Your task to perform on an android device: change the upload size in google photos Image 0: 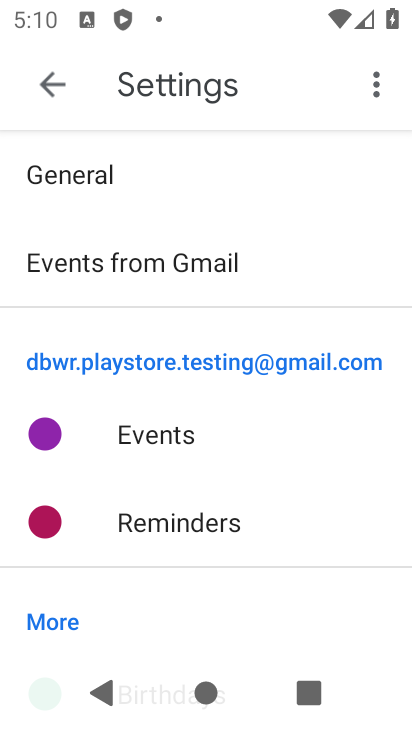
Step 0: press home button
Your task to perform on an android device: change the upload size in google photos Image 1: 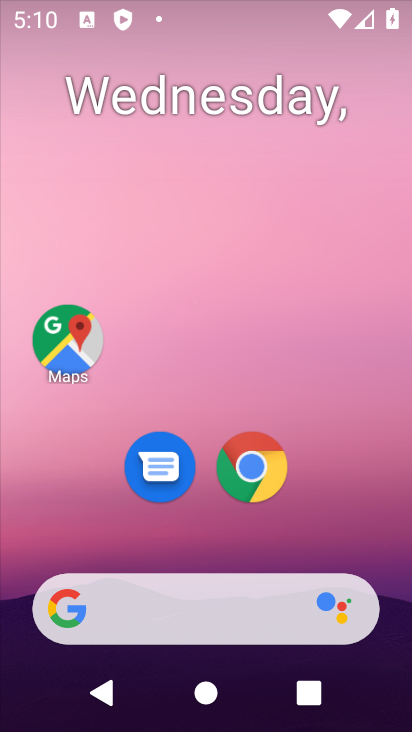
Step 1: drag from (368, 550) to (215, 3)
Your task to perform on an android device: change the upload size in google photos Image 2: 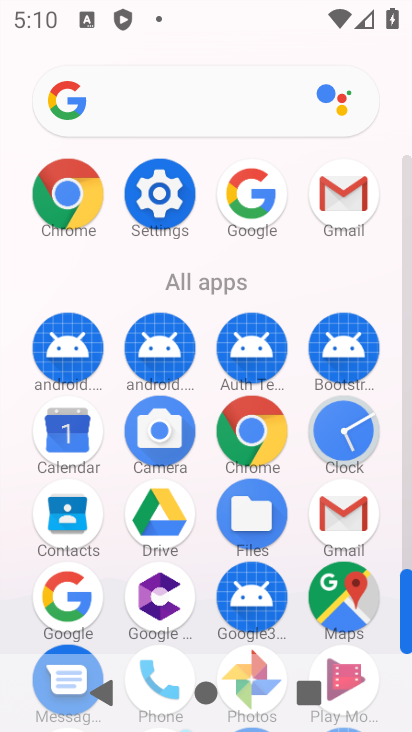
Step 2: drag from (286, 587) to (269, 212)
Your task to perform on an android device: change the upload size in google photos Image 3: 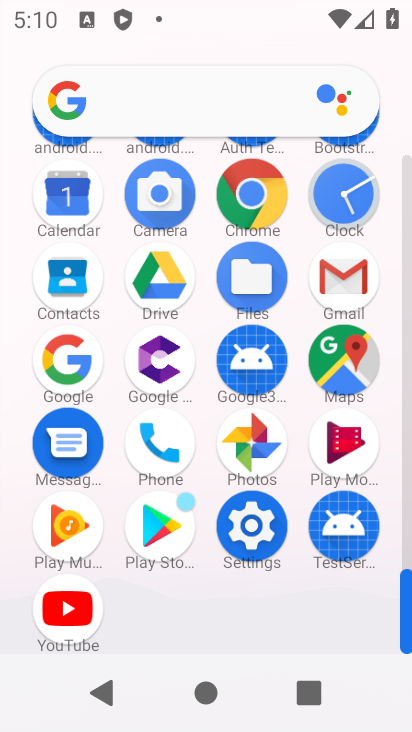
Step 3: click (267, 469)
Your task to perform on an android device: change the upload size in google photos Image 4: 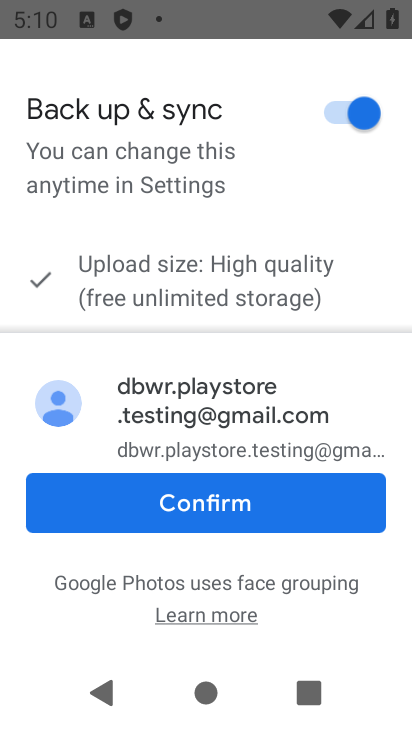
Step 4: click (216, 13)
Your task to perform on an android device: change the upload size in google photos Image 5: 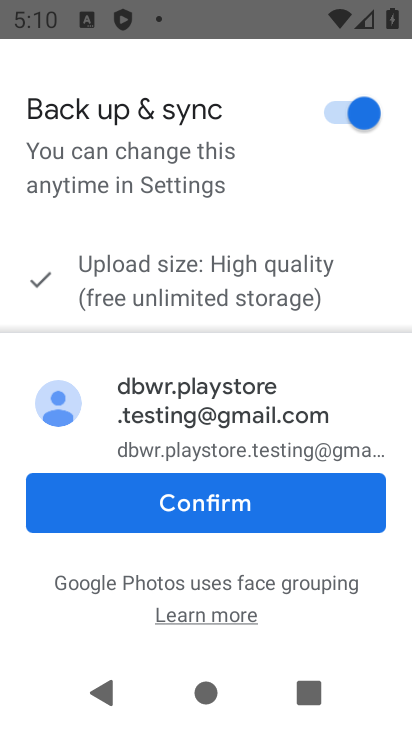
Step 5: click (324, 488)
Your task to perform on an android device: change the upload size in google photos Image 6: 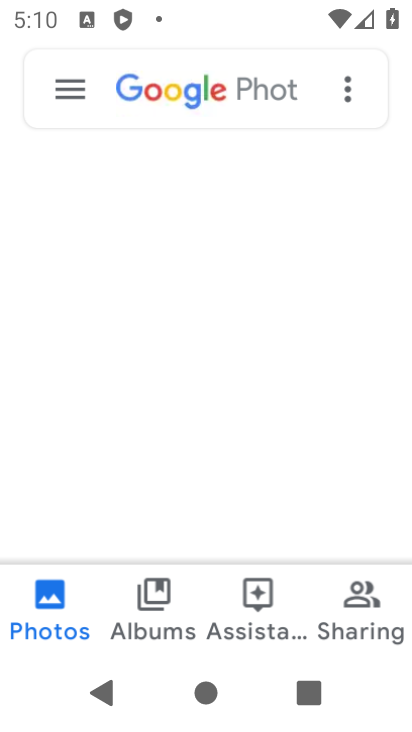
Step 6: click (45, 92)
Your task to perform on an android device: change the upload size in google photos Image 7: 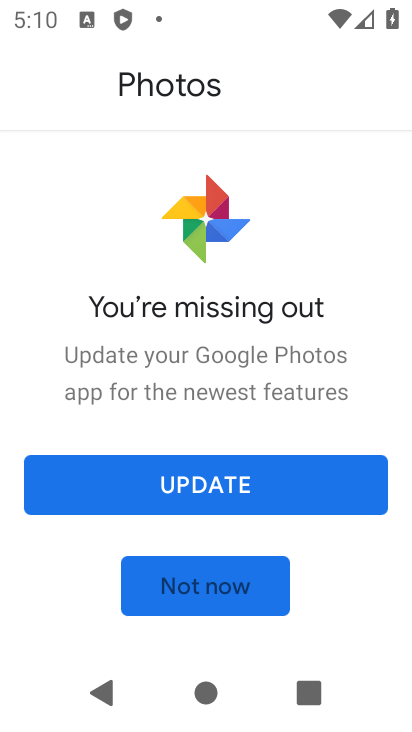
Step 7: click (351, 486)
Your task to perform on an android device: change the upload size in google photos Image 8: 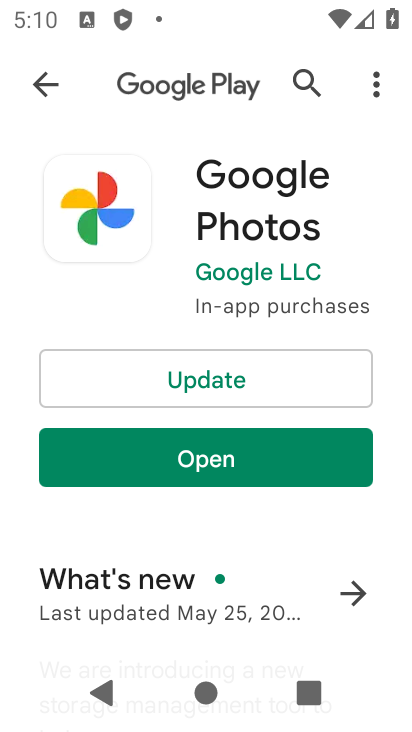
Step 8: click (208, 372)
Your task to perform on an android device: change the upload size in google photos Image 9: 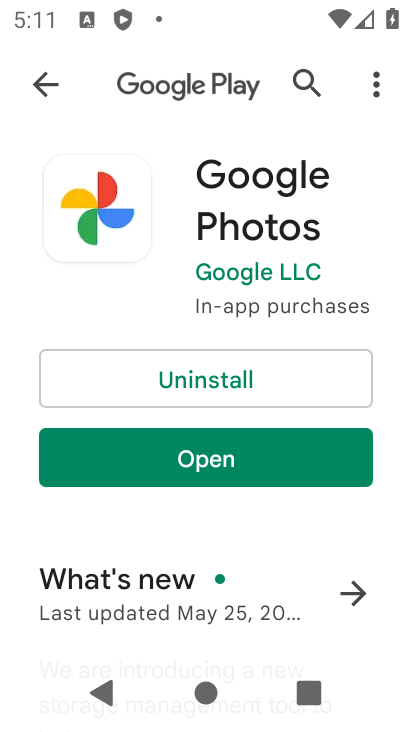
Step 9: click (312, 464)
Your task to perform on an android device: change the upload size in google photos Image 10: 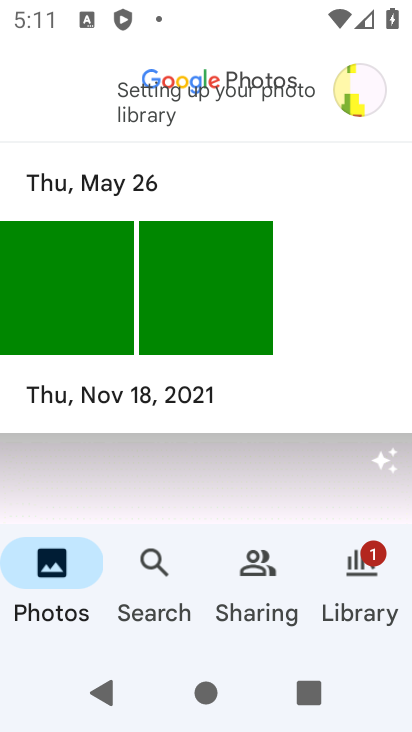
Step 10: click (357, 59)
Your task to perform on an android device: change the upload size in google photos Image 11: 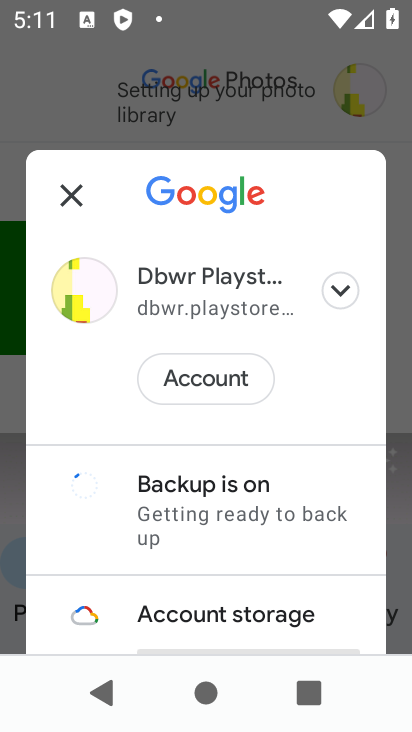
Step 11: drag from (291, 597) to (266, 173)
Your task to perform on an android device: change the upload size in google photos Image 12: 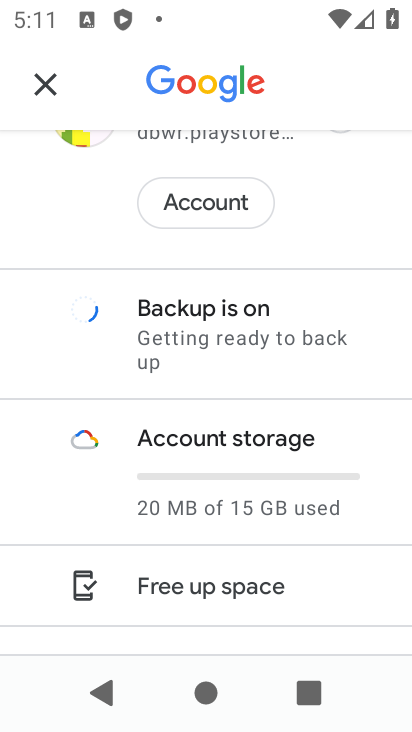
Step 12: drag from (273, 583) to (233, 110)
Your task to perform on an android device: change the upload size in google photos Image 13: 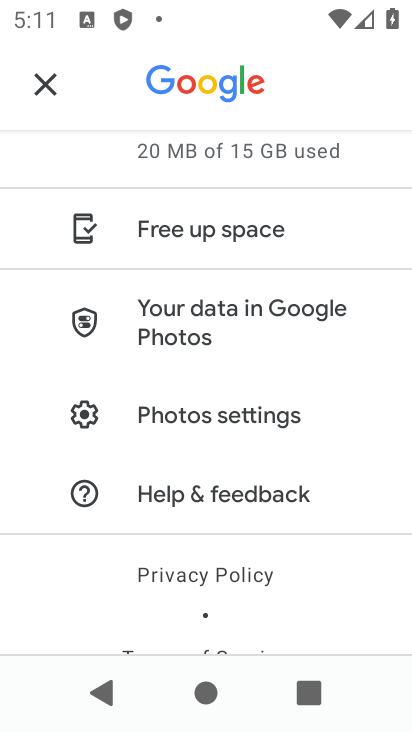
Step 13: click (209, 403)
Your task to perform on an android device: change the upload size in google photos Image 14: 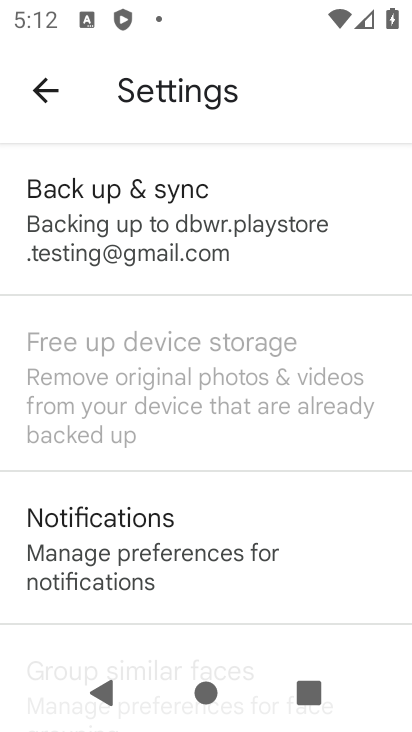
Step 14: task complete